Your task to perform on an android device: Set the phone to "Do not disturb". Image 0: 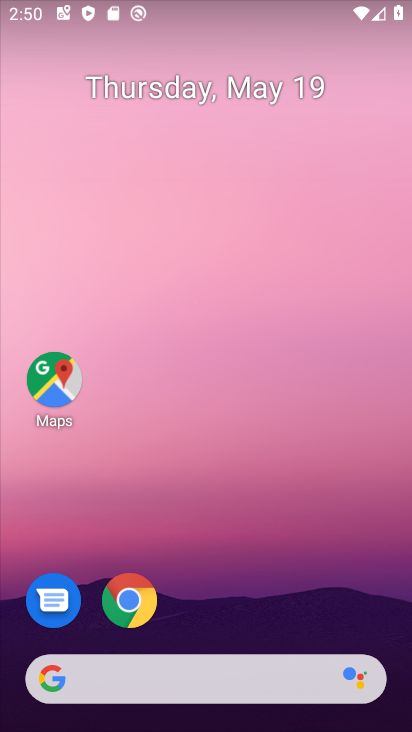
Step 0: drag from (394, 678) to (383, 349)
Your task to perform on an android device: Set the phone to "Do not disturb". Image 1: 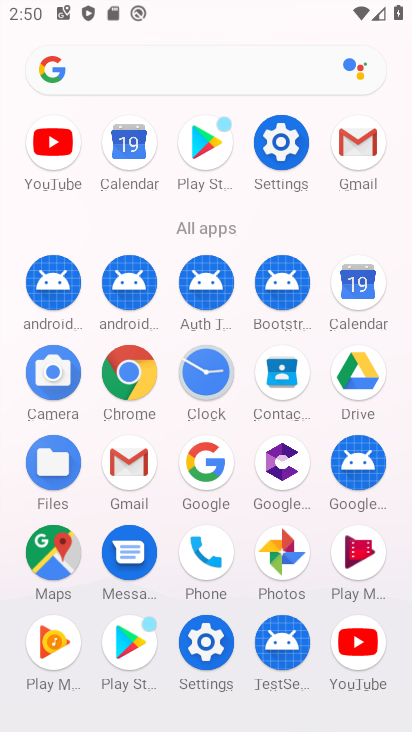
Step 1: click (283, 142)
Your task to perform on an android device: Set the phone to "Do not disturb". Image 2: 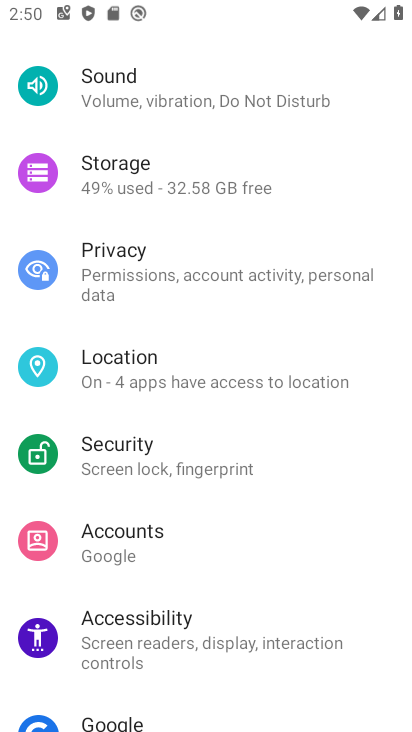
Step 2: drag from (347, 667) to (394, 336)
Your task to perform on an android device: Set the phone to "Do not disturb". Image 3: 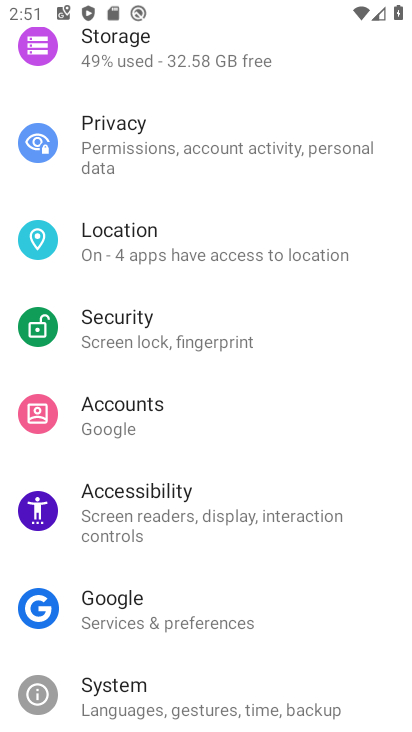
Step 3: drag from (288, 625) to (276, 382)
Your task to perform on an android device: Set the phone to "Do not disturb". Image 4: 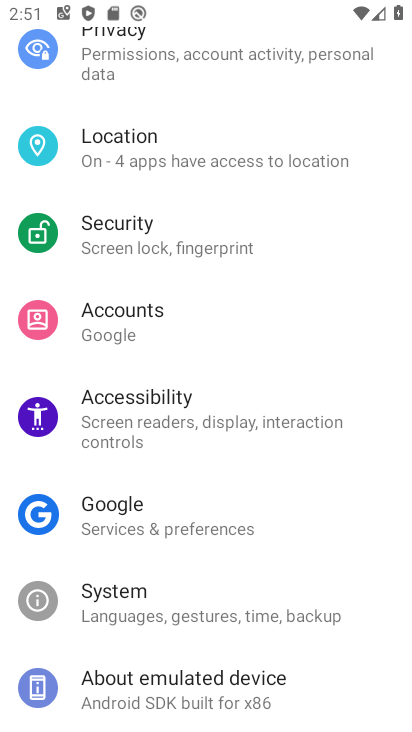
Step 4: drag from (339, 192) to (366, 442)
Your task to perform on an android device: Set the phone to "Do not disturb". Image 5: 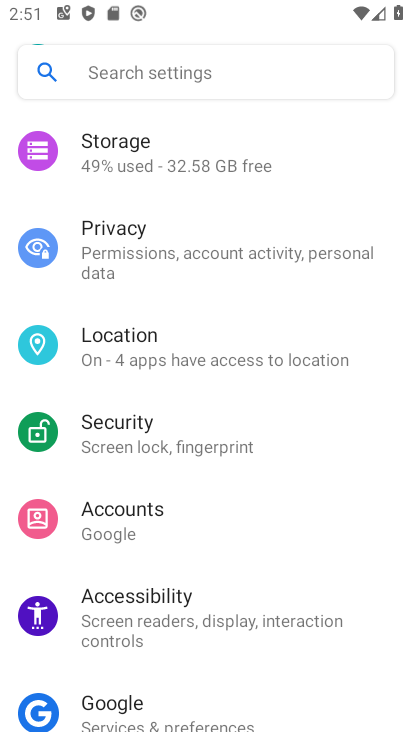
Step 5: click (408, 501)
Your task to perform on an android device: Set the phone to "Do not disturb". Image 6: 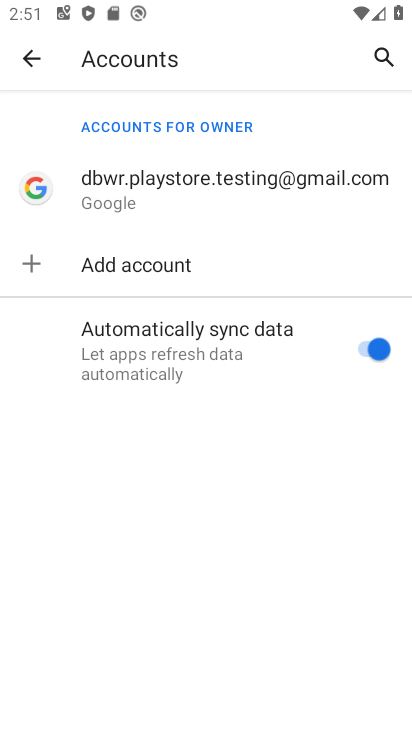
Step 6: click (23, 56)
Your task to perform on an android device: Set the phone to "Do not disturb". Image 7: 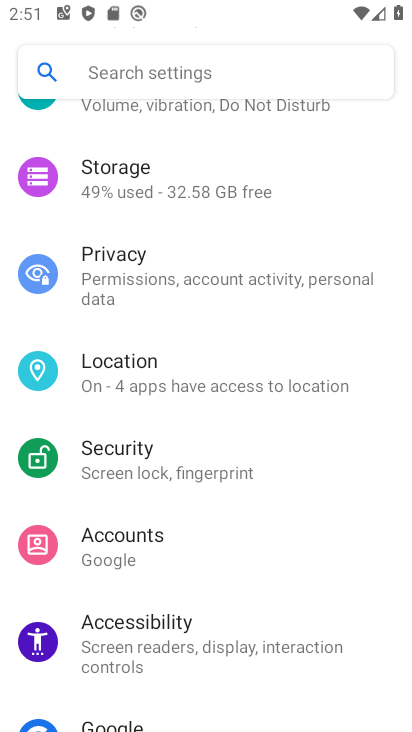
Step 7: drag from (351, 174) to (407, 533)
Your task to perform on an android device: Set the phone to "Do not disturb". Image 8: 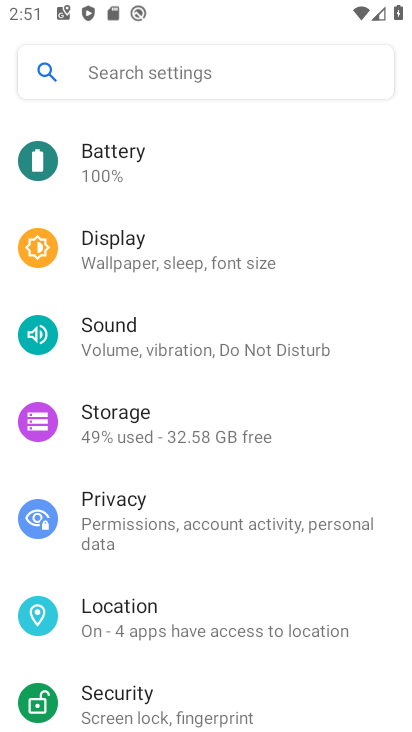
Step 8: click (157, 346)
Your task to perform on an android device: Set the phone to "Do not disturb". Image 9: 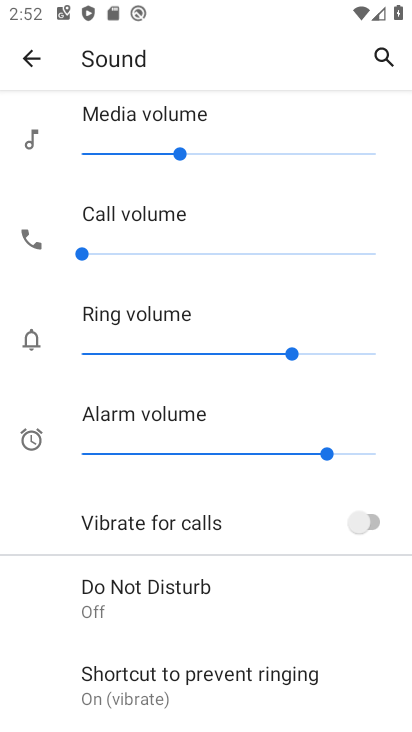
Step 9: click (116, 579)
Your task to perform on an android device: Set the phone to "Do not disturb". Image 10: 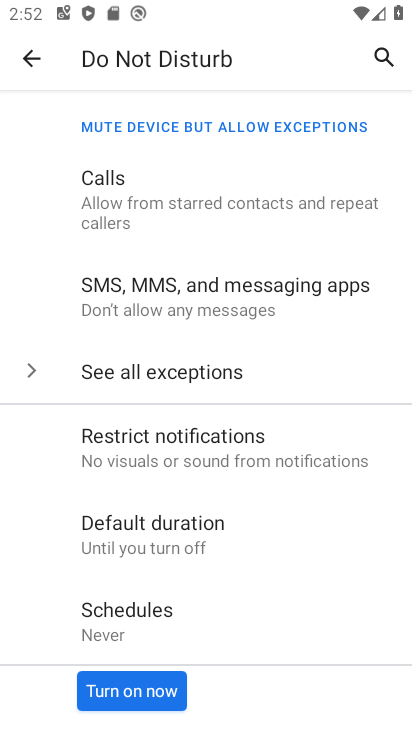
Step 10: click (141, 694)
Your task to perform on an android device: Set the phone to "Do not disturb". Image 11: 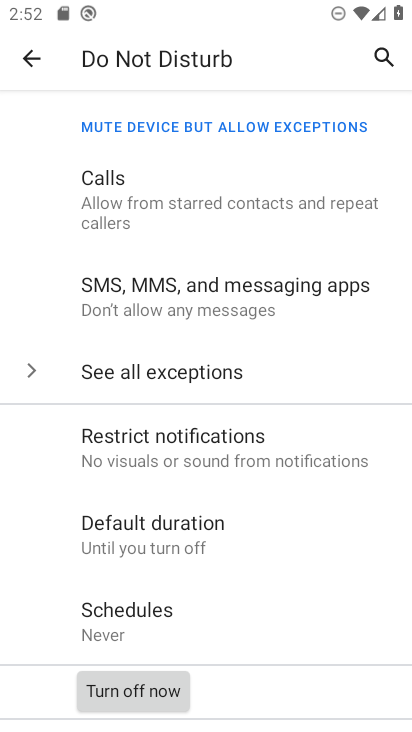
Step 11: task complete